Your task to perform on an android device: toggle sleep mode Image 0: 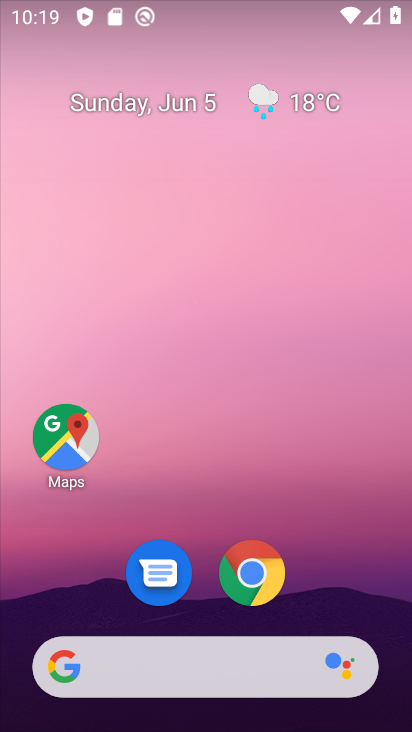
Step 0: drag from (103, 630) to (155, 248)
Your task to perform on an android device: toggle sleep mode Image 1: 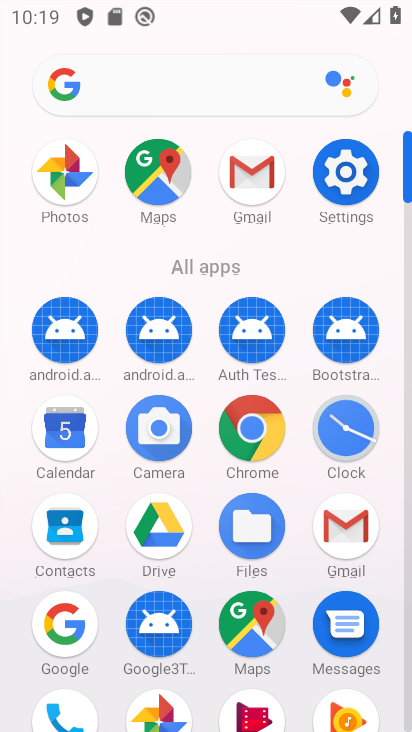
Step 1: drag from (63, 636) to (140, 350)
Your task to perform on an android device: toggle sleep mode Image 2: 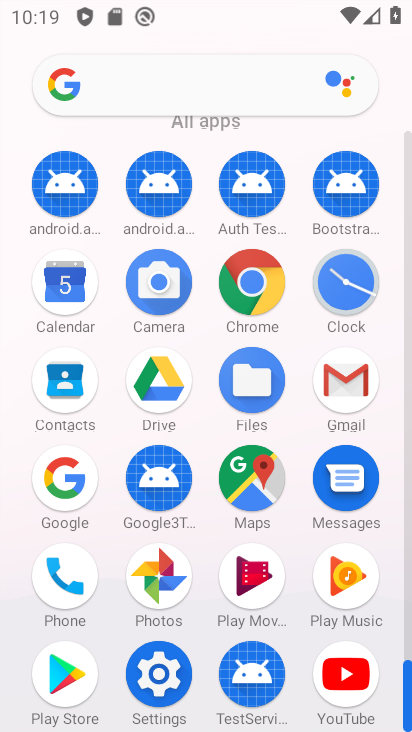
Step 2: click (174, 686)
Your task to perform on an android device: toggle sleep mode Image 3: 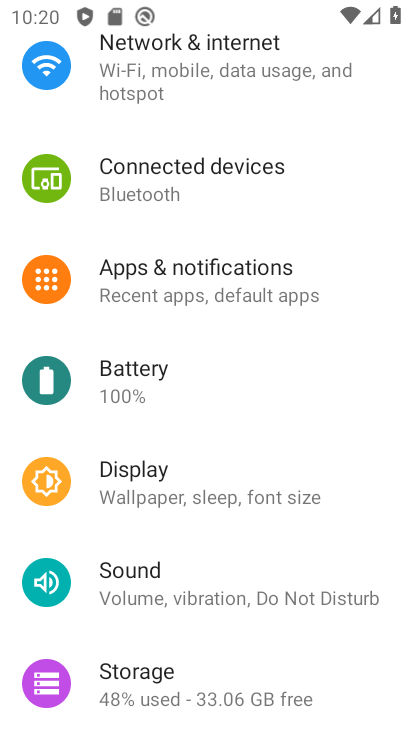
Step 3: drag from (210, 694) to (239, 591)
Your task to perform on an android device: toggle sleep mode Image 4: 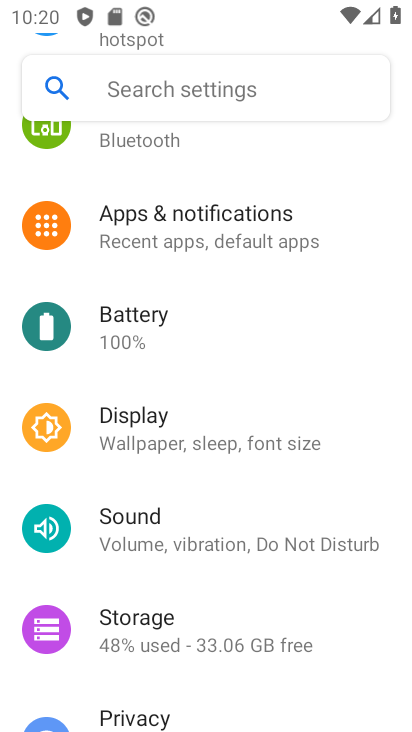
Step 4: click (208, 444)
Your task to perform on an android device: toggle sleep mode Image 5: 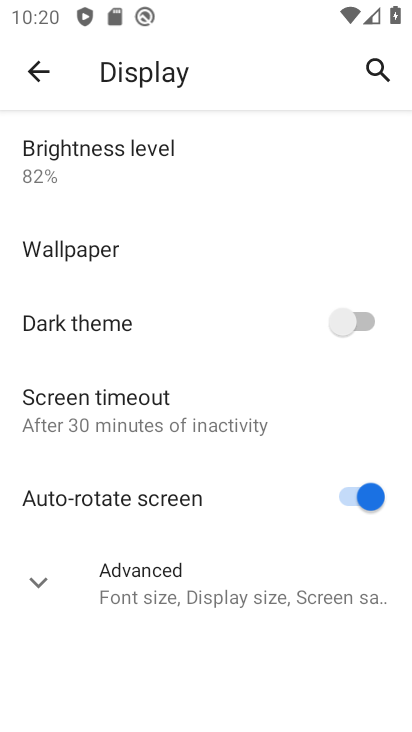
Step 5: click (174, 476)
Your task to perform on an android device: toggle sleep mode Image 6: 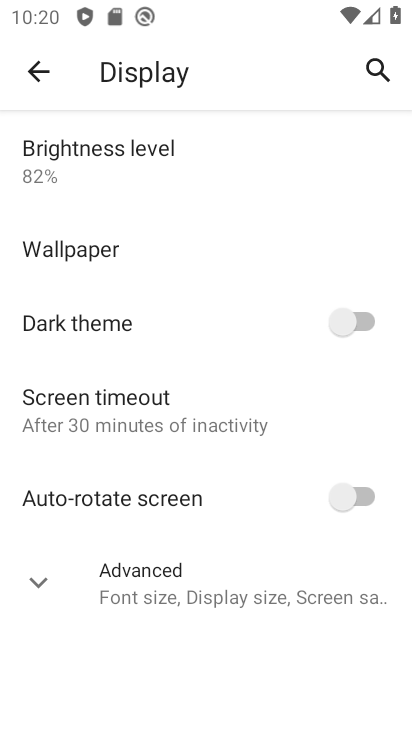
Step 6: click (208, 597)
Your task to perform on an android device: toggle sleep mode Image 7: 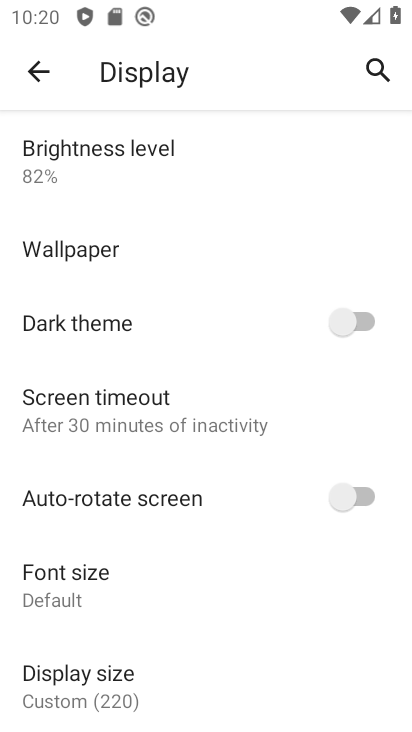
Step 7: task complete